Your task to perform on an android device: turn off translation in the chrome app Image 0: 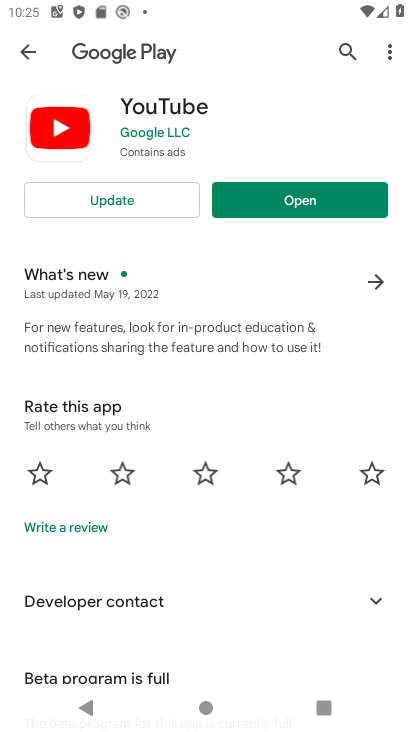
Step 0: press back button
Your task to perform on an android device: turn off translation in the chrome app Image 1: 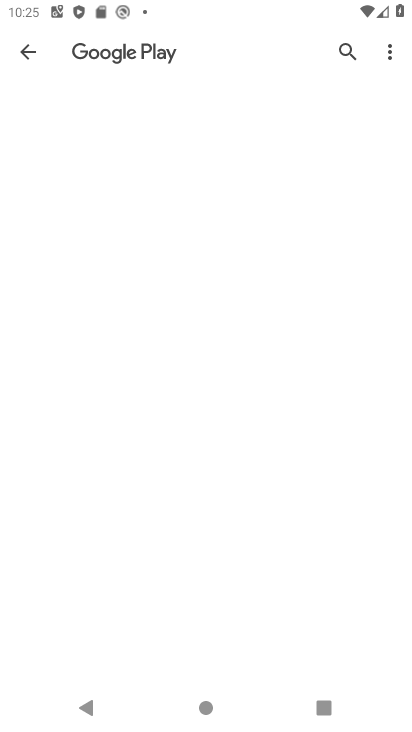
Step 1: press back button
Your task to perform on an android device: turn off translation in the chrome app Image 2: 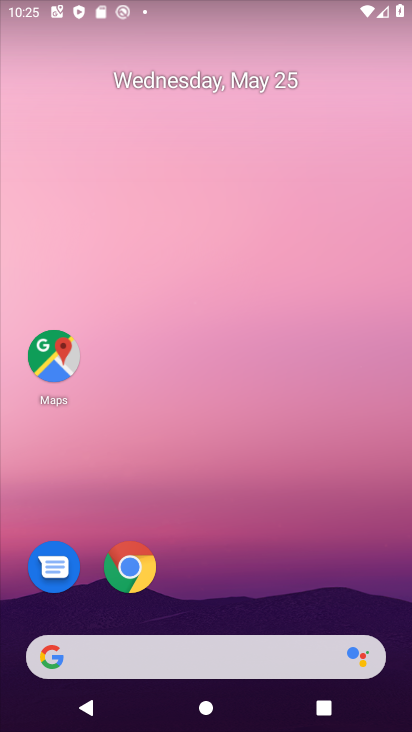
Step 2: drag from (288, 684) to (45, 104)
Your task to perform on an android device: turn off translation in the chrome app Image 3: 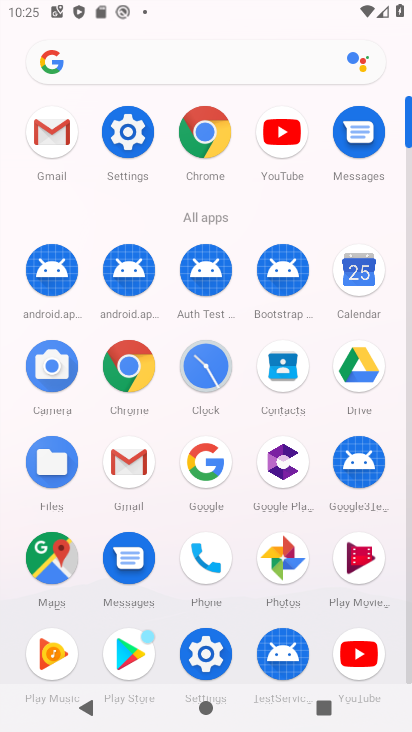
Step 3: click (199, 124)
Your task to perform on an android device: turn off translation in the chrome app Image 4: 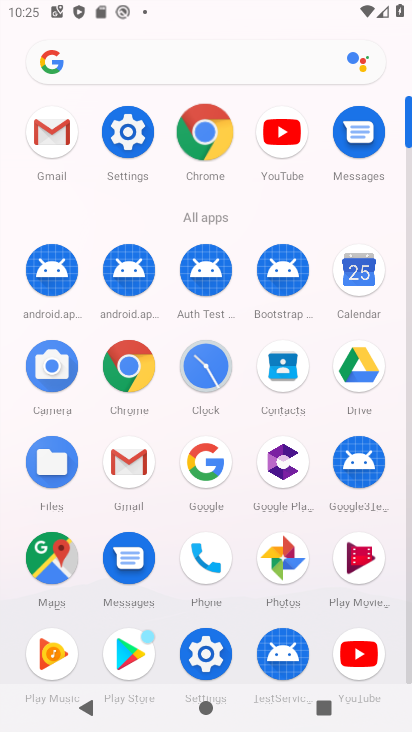
Step 4: click (199, 124)
Your task to perform on an android device: turn off translation in the chrome app Image 5: 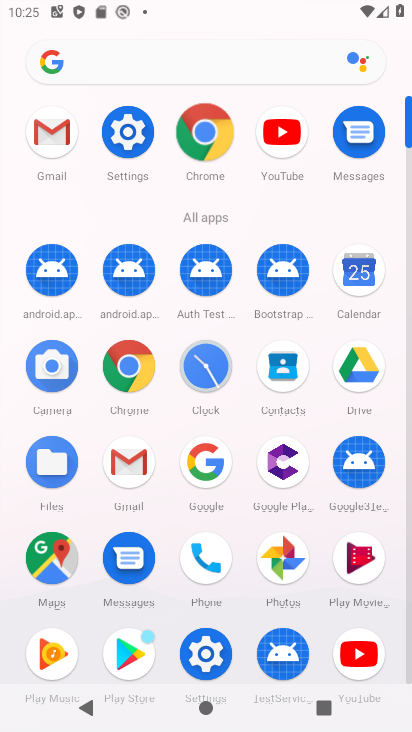
Step 5: click (199, 124)
Your task to perform on an android device: turn off translation in the chrome app Image 6: 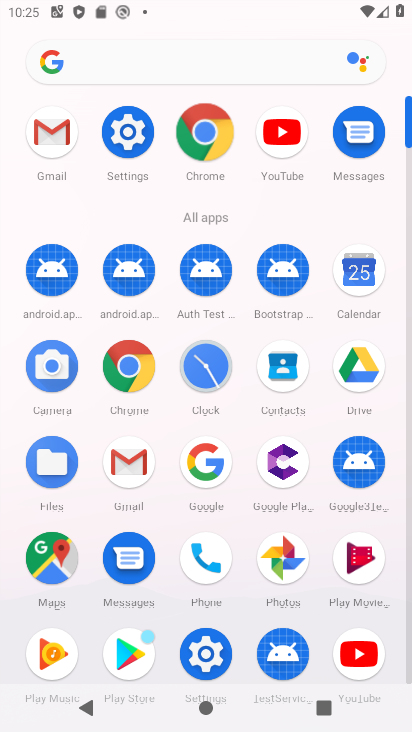
Step 6: click (199, 124)
Your task to perform on an android device: turn off translation in the chrome app Image 7: 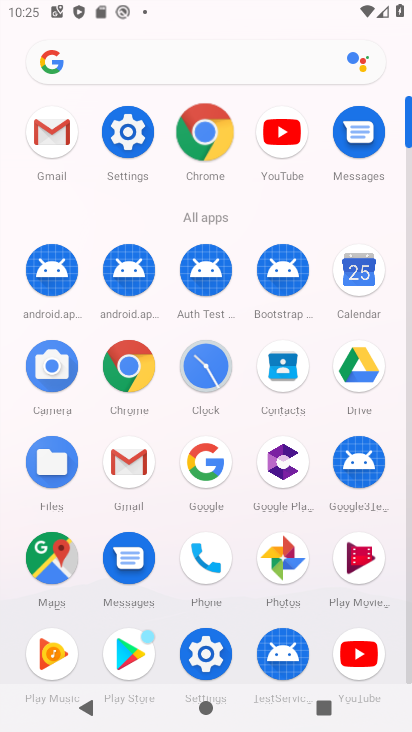
Step 7: click (199, 124)
Your task to perform on an android device: turn off translation in the chrome app Image 8: 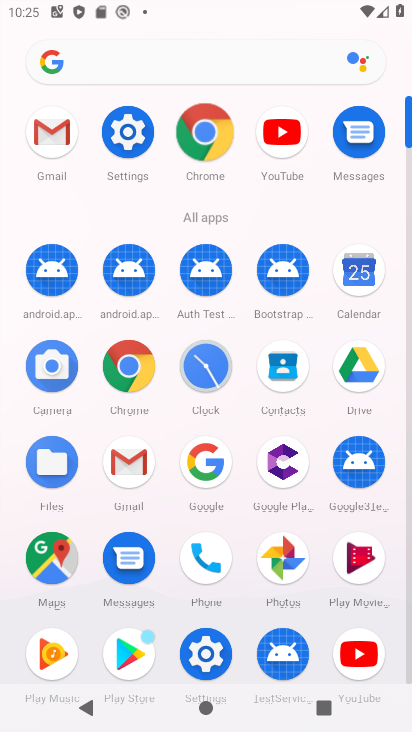
Step 8: click (199, 124)
Your task to perform on an android device: turn off translation in the chrome app Image 9: 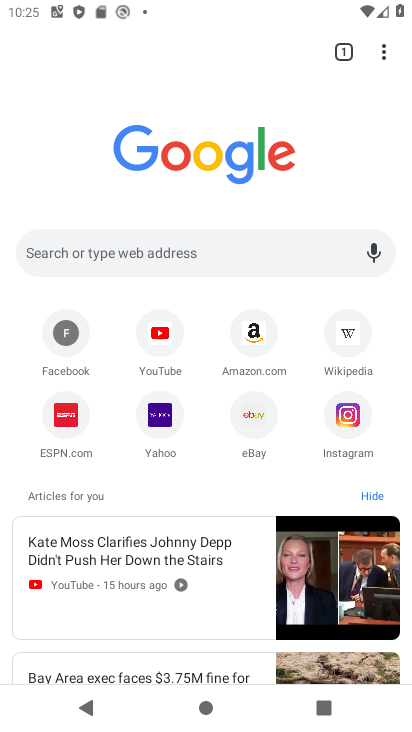
Step 9: click (201, 128)
Your task to perform on an android device: turn off translation in the chrome app Image 10: 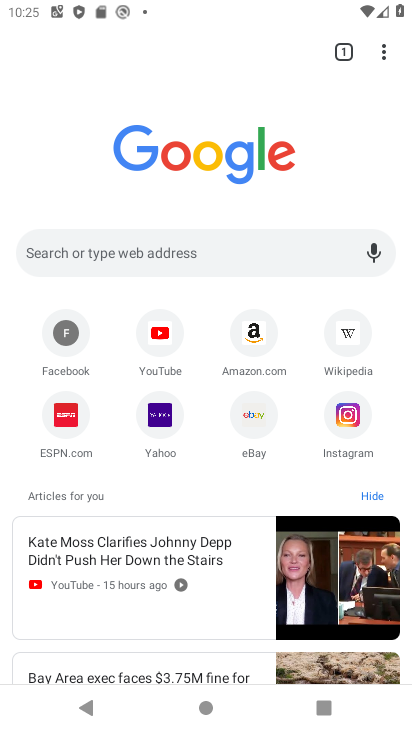
Step 10: drag from (380, 47) to (179, 445)
Your task to perform on an android device: turn off translation in the chrome app Image 11: 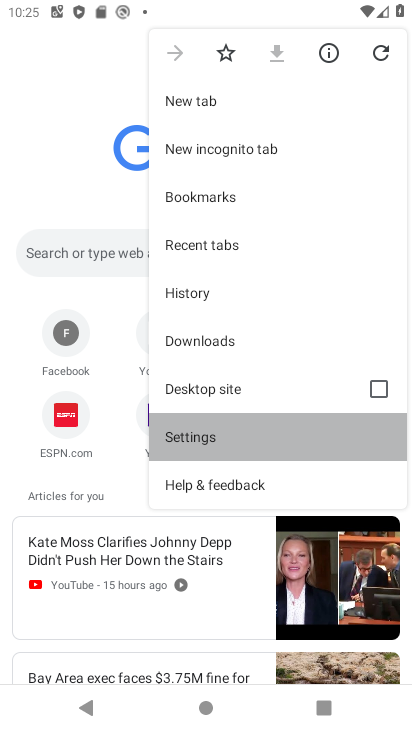
Step 11: click (180, 444)
Your task to perform on an android device: turn off translation in the chrome app Image 12: 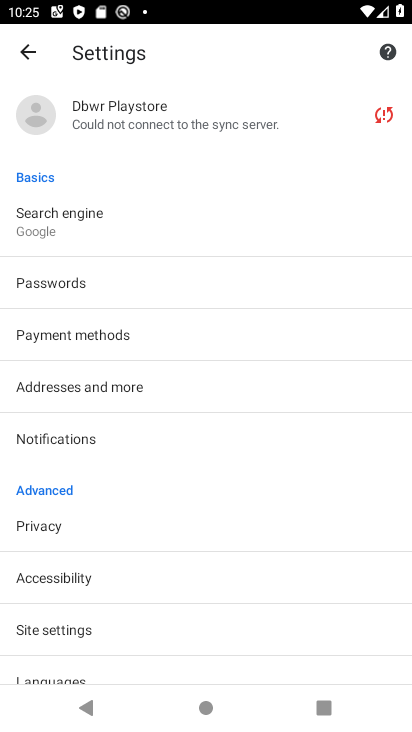
Step 12: click (37, 573)
Your task to perform on an android device: turn off translation in the chrome app Image 13: 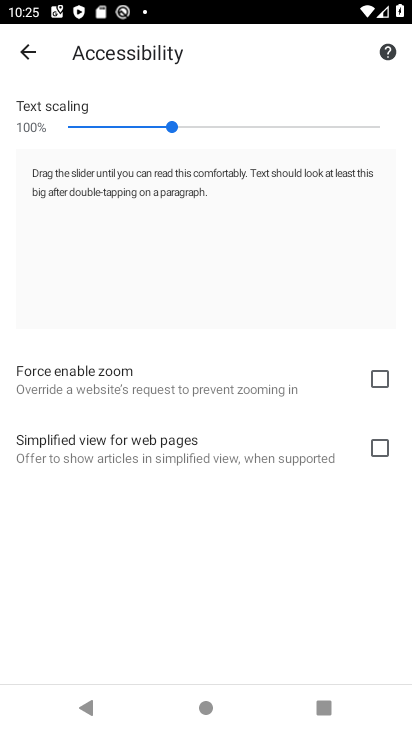
Step 13: click (38, 559)
Your task to perform on an android device: turn off translation in the chrome app Image 14: 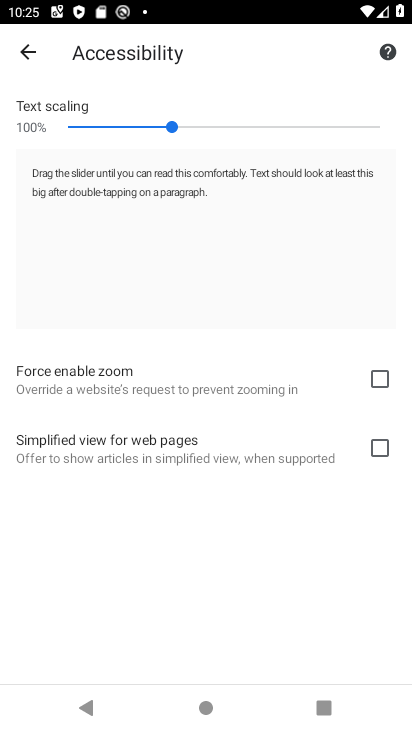
Step 14: click (28, 58)
Your task to perform on an android device: turn off translation in the chrome app Image 15: 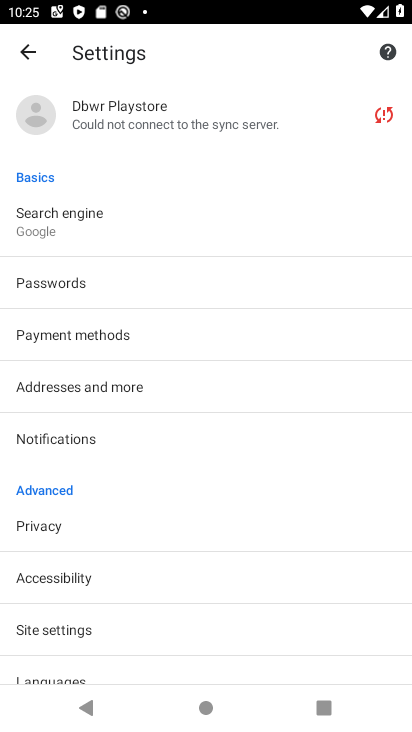
Step 15: click (44, 620)
Your task to perform on an android device: turn off translation in the chrome app Image 16: 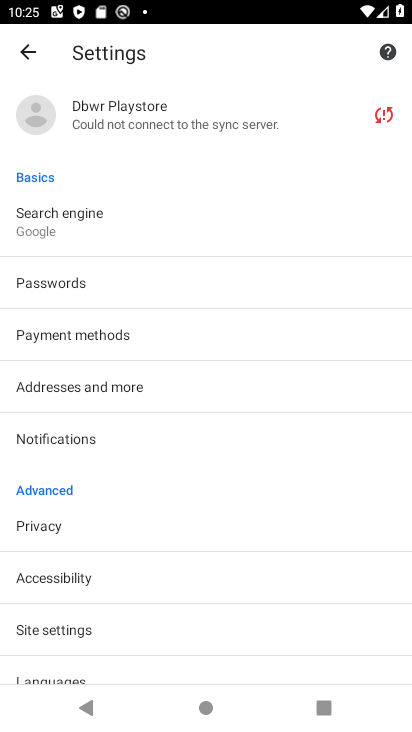
Step 16: click (46, 632)
Your task to perform on an android device: turn off translation in the chrome app Image 17: 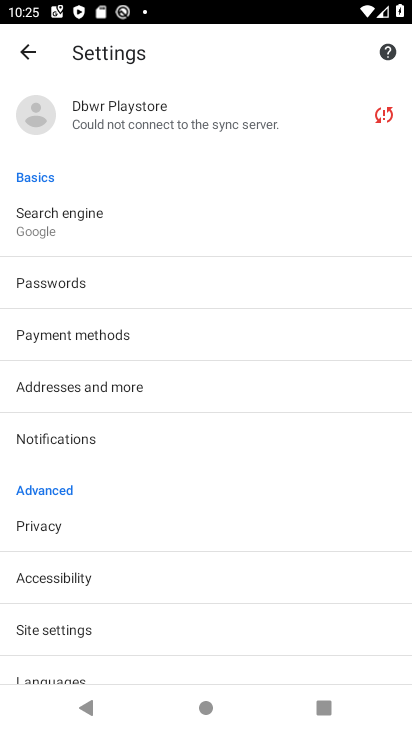
Step 17: click (46, 632)
Your task to perform on an android device: turn off translation in the chrome app Image 18: 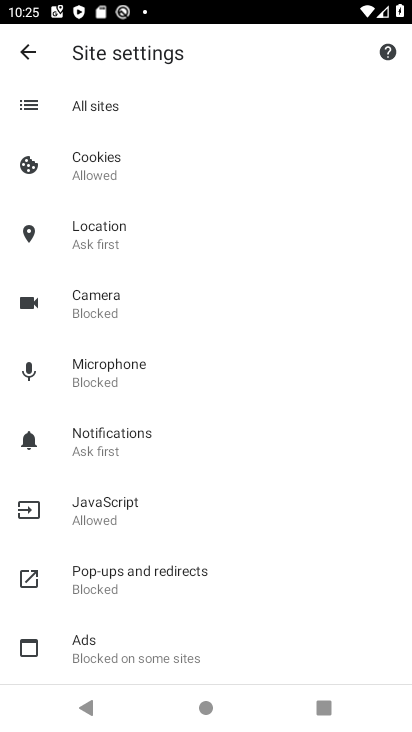
Step 18: click (107, 251)
Your task to perform on an android device: turn off translation in the chrome app Image 19: 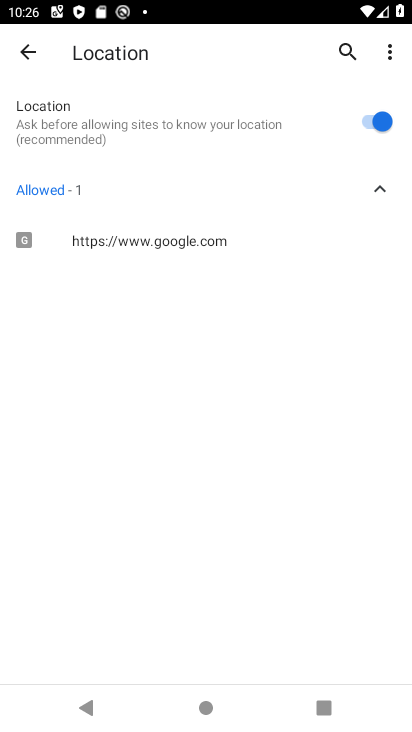
Step 19: click (27, 52)
Your task to perform on an android device: turn off translation in the chrome app Image 20: 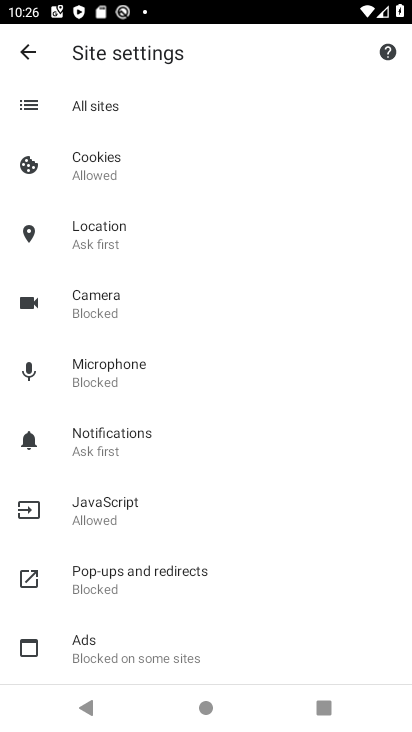
Step 20: click (29, 51)
Your task to perform on an android device: turn off translation in the chrome app Image 21: 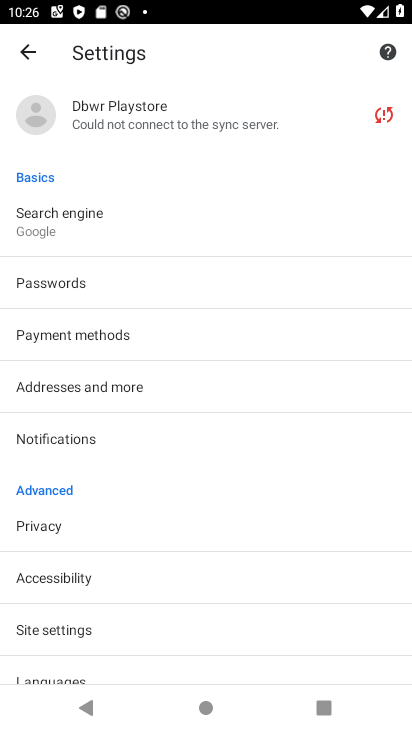
Step 21: drag from (62, 634) to (98, 212)
Your task to perform on an android device: turn off translation in the chrome app Image 22: 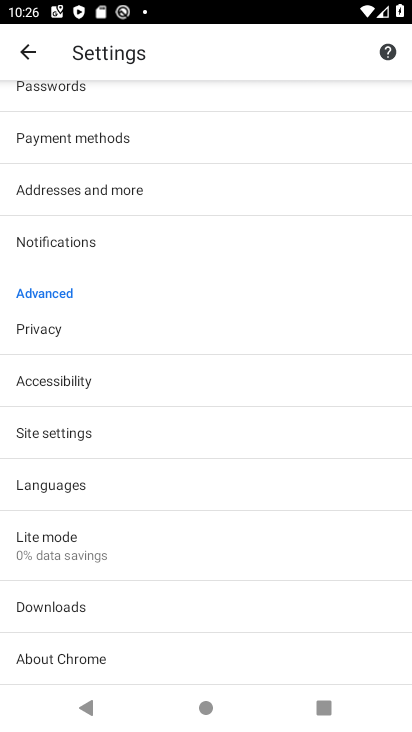
Step 22: click (34, 476)
Your task to perform on an android device: turn off translation in the chrome app Image 23: 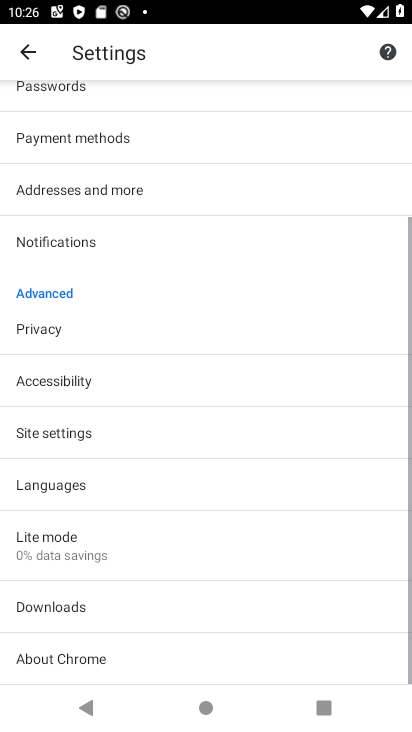
Step 23: click (35, 475)
Your task to perform on an android device: turn off translation in the chrome app Image 24: 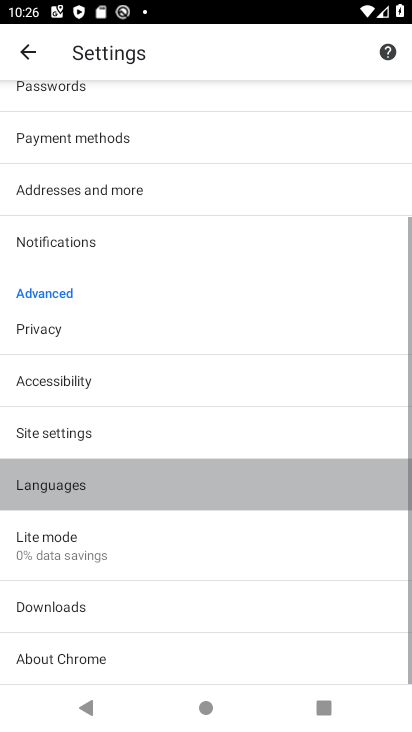
Step 24: click (35, 475)
Your task to perform on an android device: turn off translation in the chrome app Image 25: 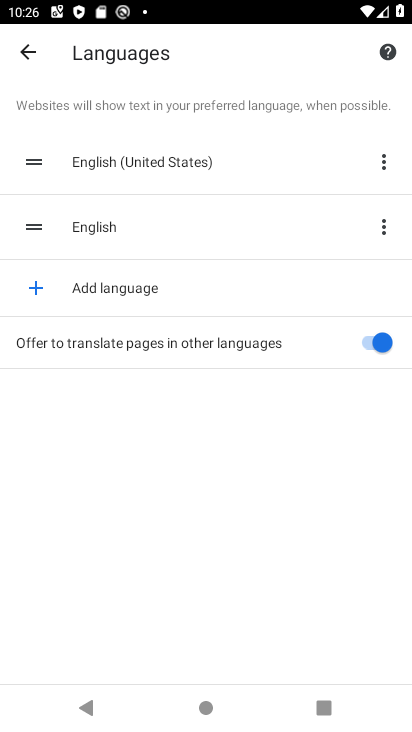
Step 25: click (377, 338)
Your task to perform on an android device: turn off translation in the chrome app Image 26: 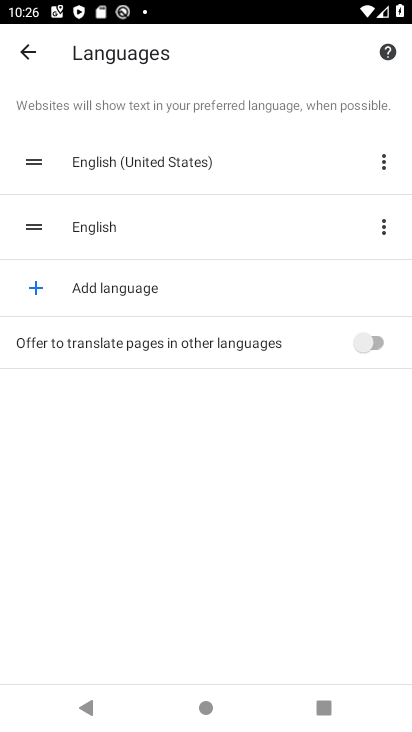
Step 26: task complete